Your task to perform on an android device: Open CNN.com Image 0: 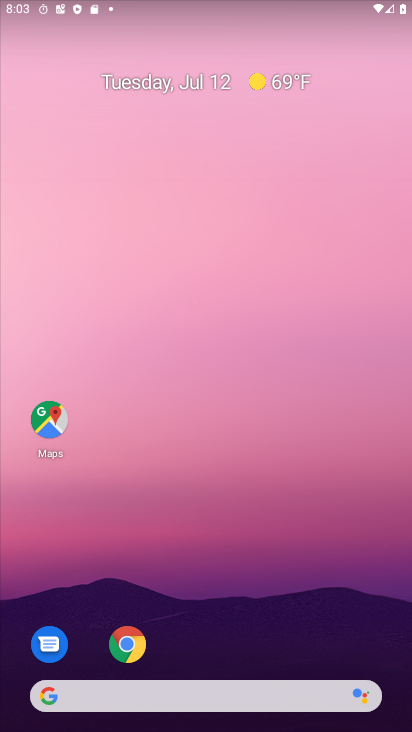
Step 0: press home button
Your task to perform on an android device: Open CNN.com Image 1: 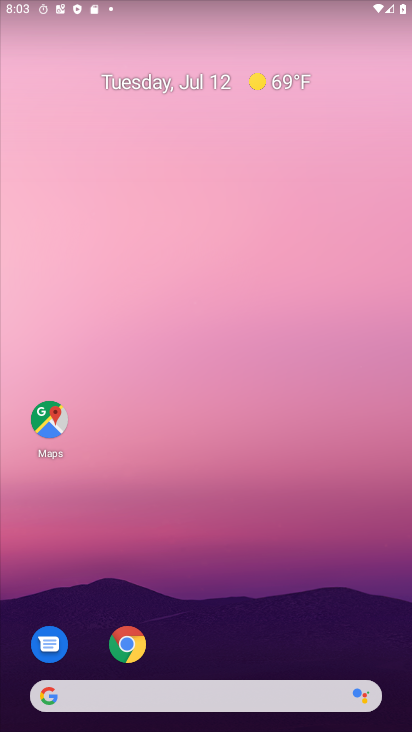
Step 1: click (127, 638)
Your task to perform on an android device: Open CNN.com Image 2: 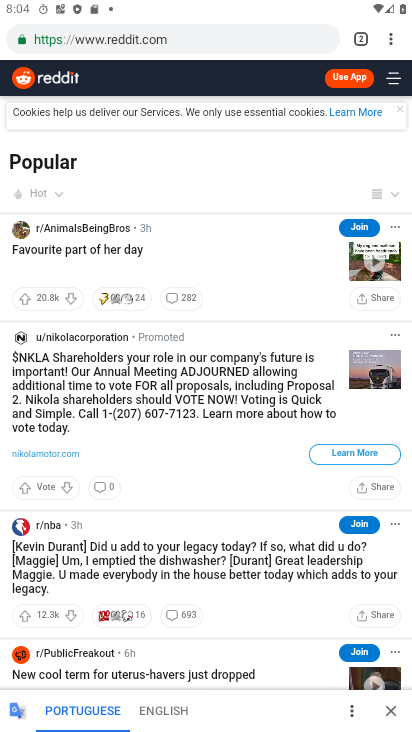
Step 2: click (363, 30)
Your task to perform on an android device: Open CNN.com Image 3: 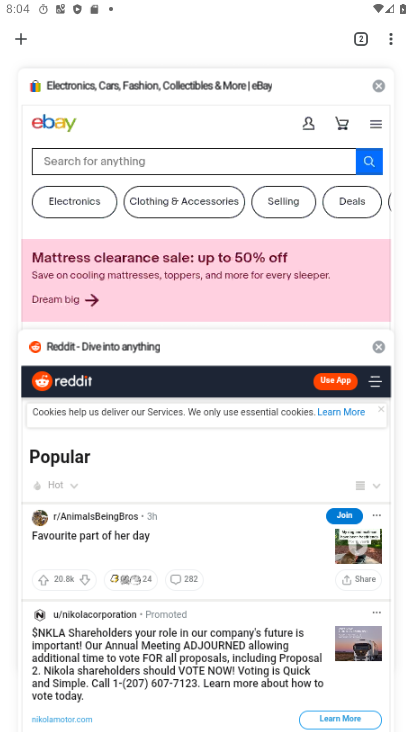
Step 3: click (15, 40)
Your task to perform on an android device: Open CNN.com Image 4: 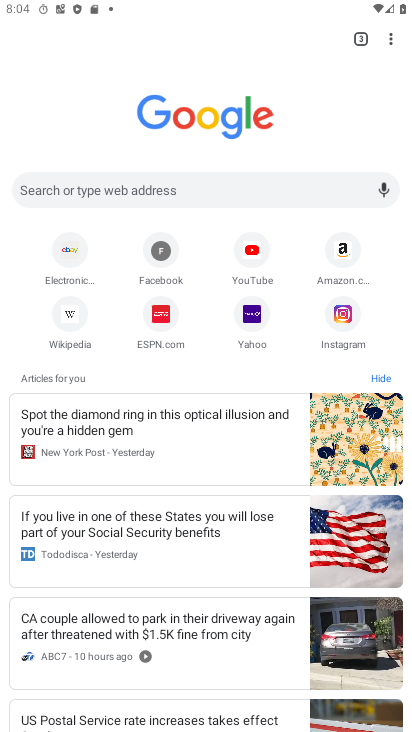
Step 4: click (110, 184)
Your task to perform on an android device: Open CNN.com Image 5: 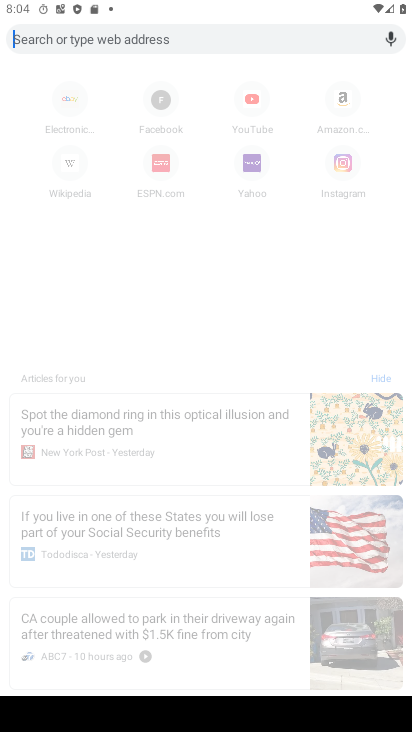
Step 5: type "cnn.com"
Your task to perform on an android device: Open CNN.com Image 6: 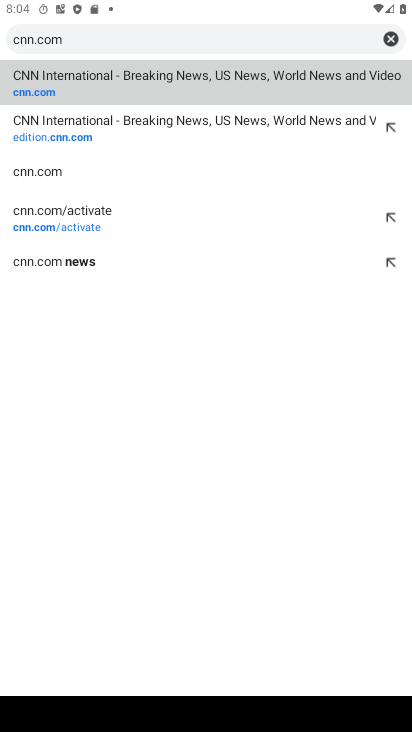
Step 6: click (112, 80)
Your task to perform on an android device: Open CNN.com Image 7: 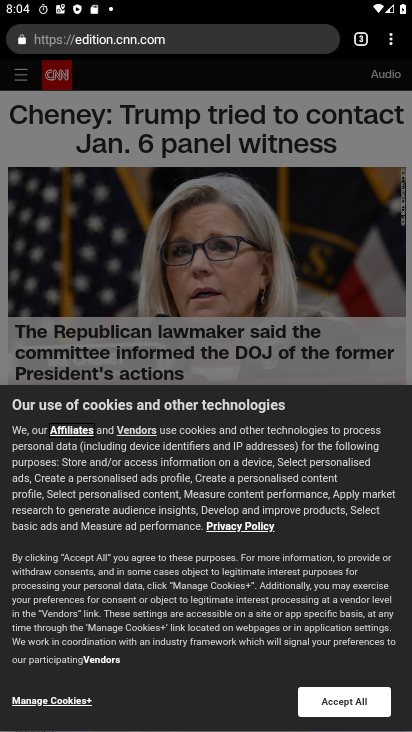
Step 7: click (348, 703)
Your task to perform on an android device: Open CNN.com Image 8: 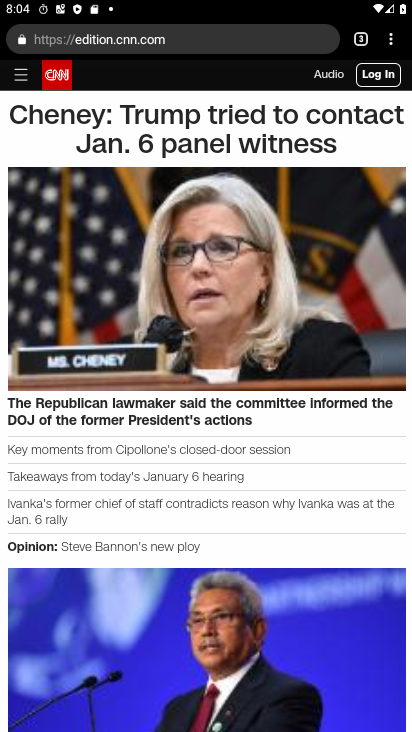
Step 8: task complete